Your task to perform on an android device: Open Amazon Image 0: 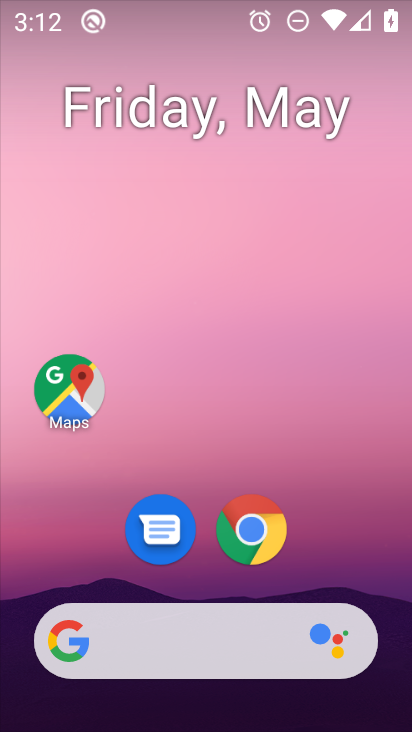
Step 0: click (261, 514)
Your task to perform on an android device: Open Amazon Image 1: 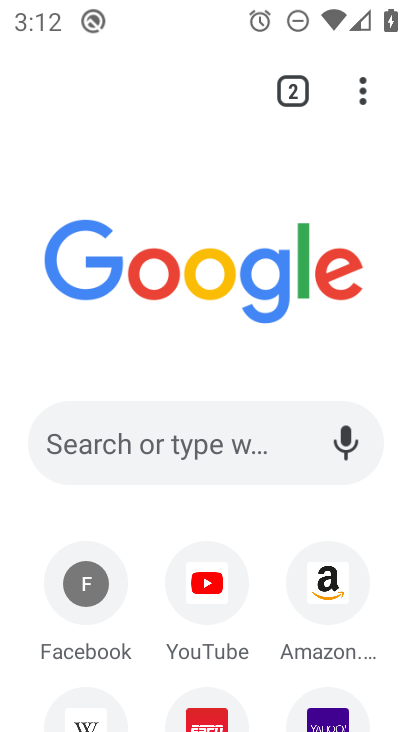
Step 1: click (191, 446)
Your task to perform on an android device: Open Amazon Image 2: 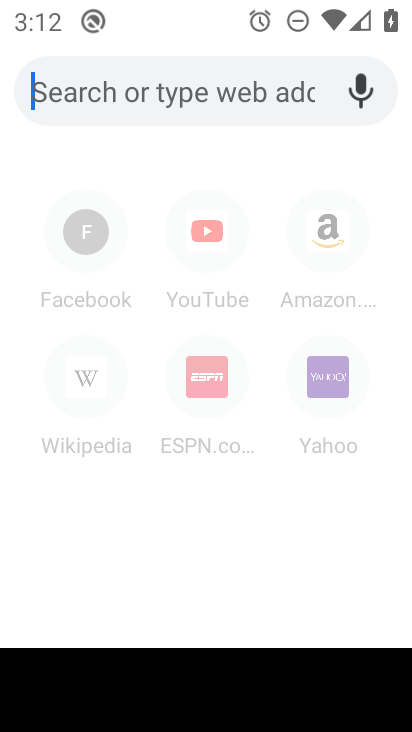
Step 2: type "Amazon"
Your task to perform on an android device: Open Amazon Image 3: 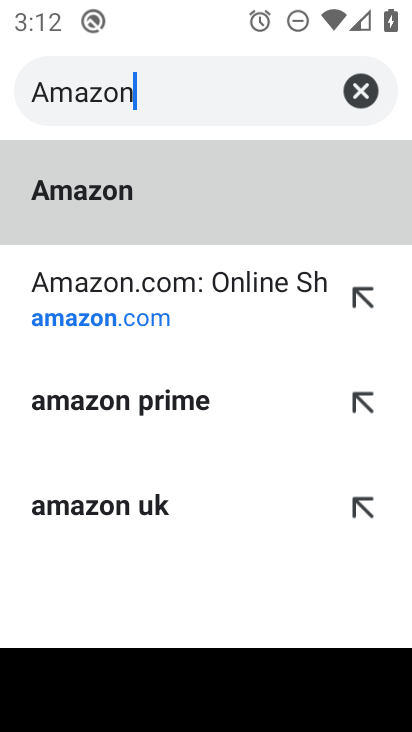
Step 3: click (75, 186)
Your task to perform on an android device: Open Amazon Image 4: 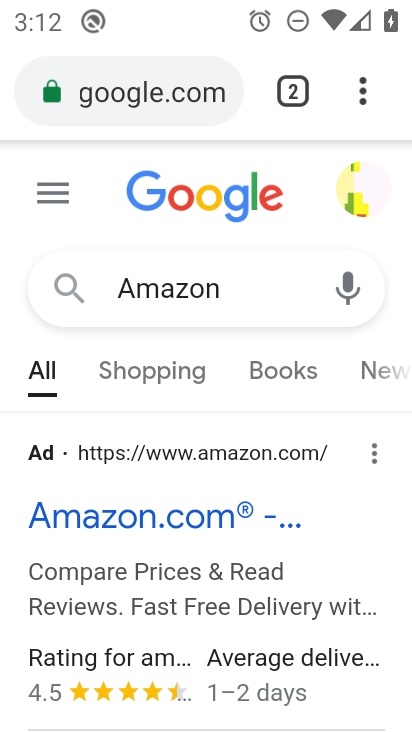
Step 4: task complete